Your task to perform on an android device: delete the emails in spam in the gmail app Image 0: 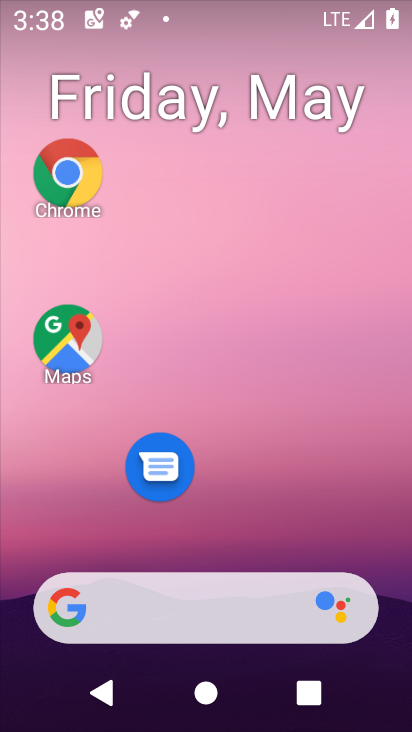
Step 0: drag from (275, 419) to (211, 67)
Your task to perform on an android device: delete the emails in spam in the gmail app Image 1: 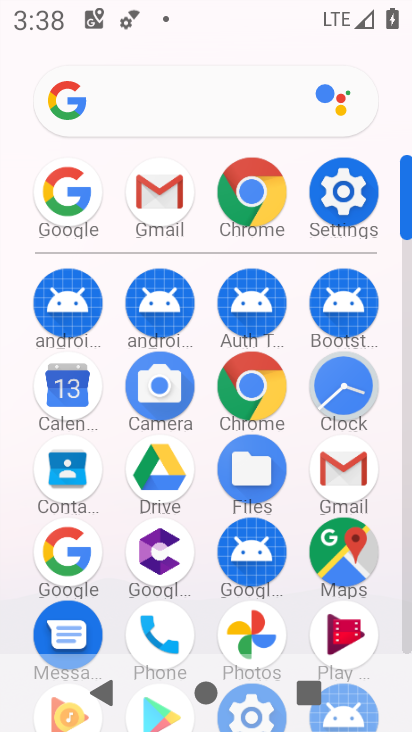
Step 1: click (164, 177)
Your task to perform on an android device: delete the emails in spam in the gmail app Image 2: 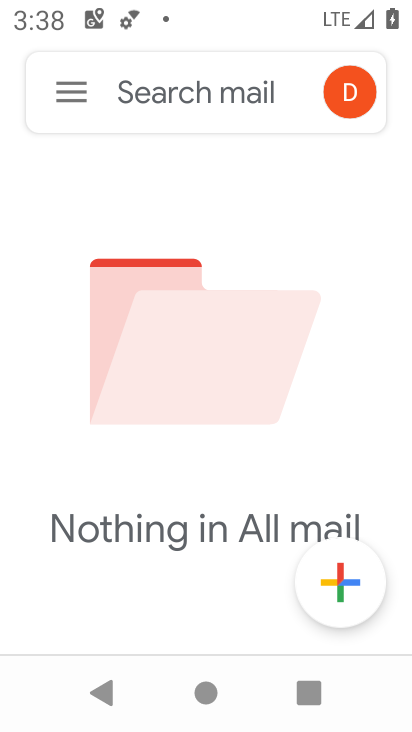
Step 2: click (70, 100)
Your task to perform on an android device: delete the emails in spam in the gmail app Image 3: 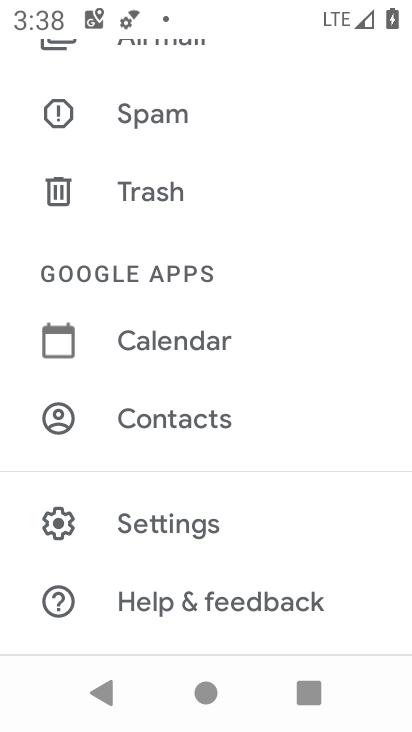
Step 3: click (183, 126)
Your task to perform on an android device: delete the emails in spam in the gmail app Image 4: 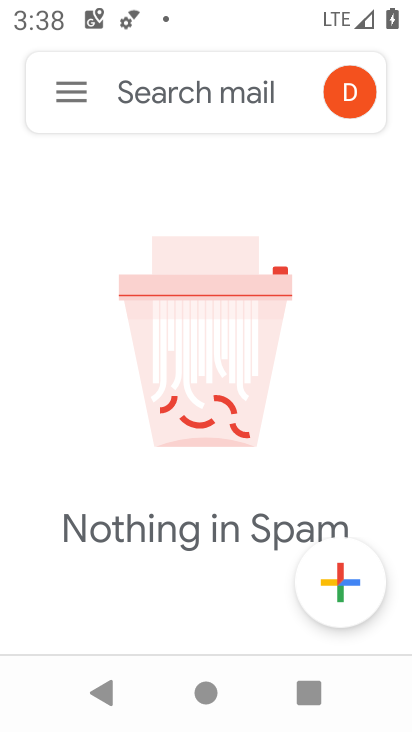
Step 4: task complete